Your task to perform on an android device: Do I have any events tomorrow? Image 0: 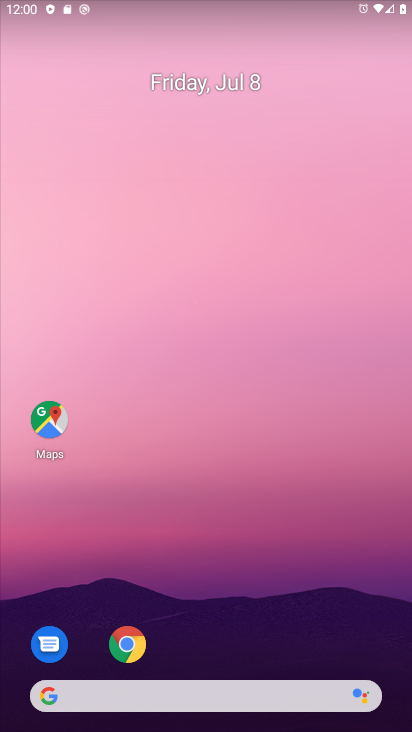
Step 0: drag from (225, 542) to (295, 72)
Your task to perform on an android device: Do I have any events tomorrow? Image 1: 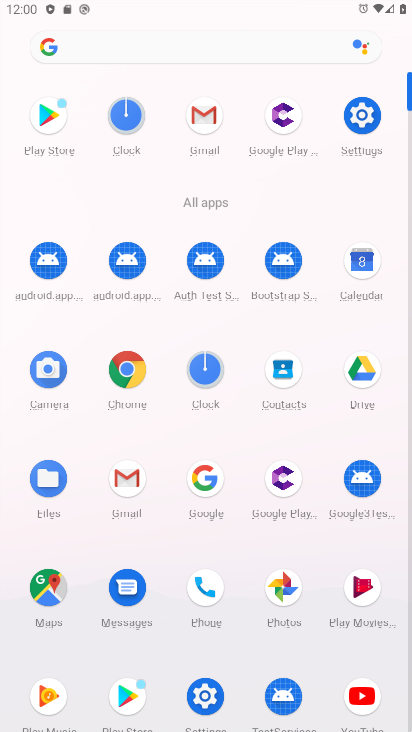
Step 1: click (366, 274)
Your task to perform on an android device: Do I have any events tomorrow? Image 2: 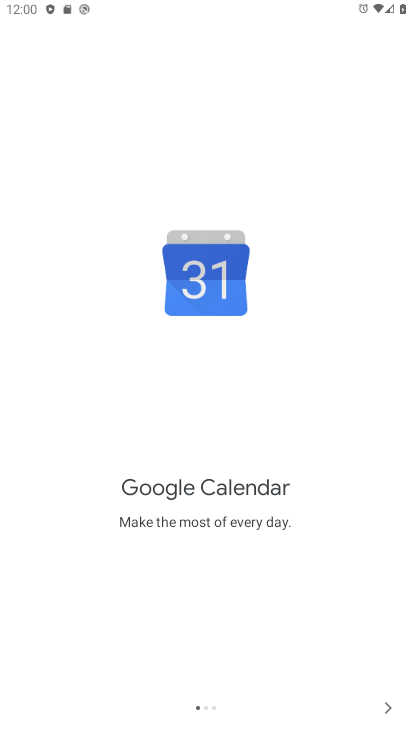
Step 2: click (392, 703)
Your task to perform on an android device: Do I have any events tomorrow? Image 3: 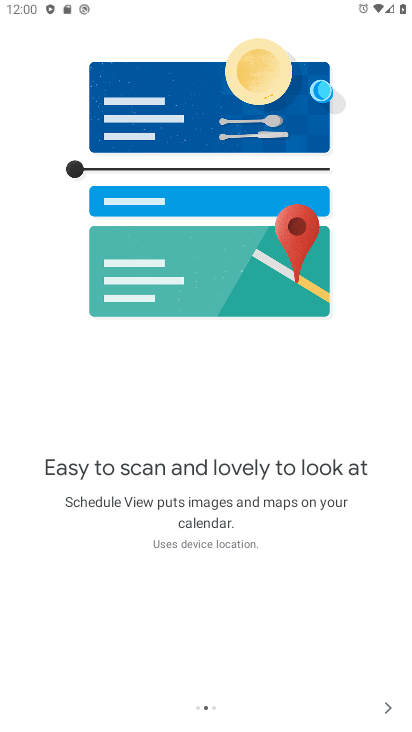
Step 3: click (384, 708)
Your task to perform on an android device: Do I have any events tomorrow? Image 4: 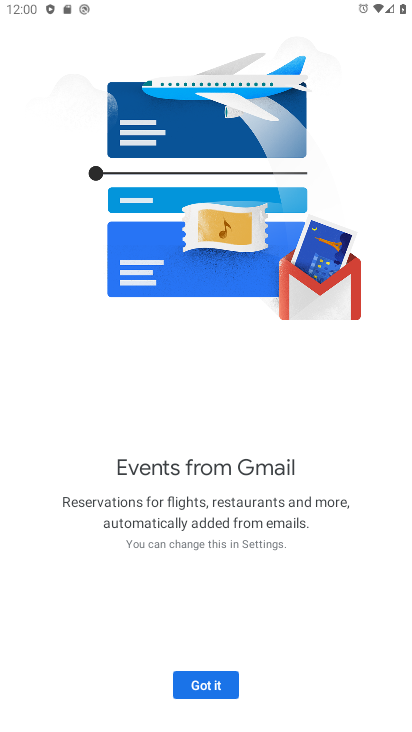
Step 4: click (203, 681)
Your task to perform on an android device: Do I have any events tomorrow? Image 5: 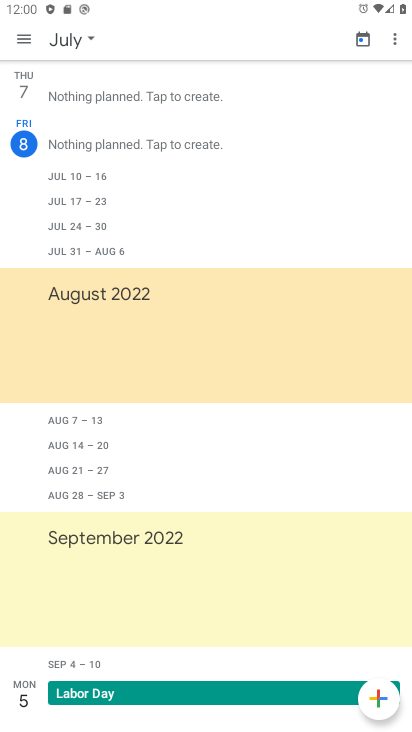
Step 5: click (22, 36)
Your task to perform on an android device: Do I have any events tomorrow? Image 6: 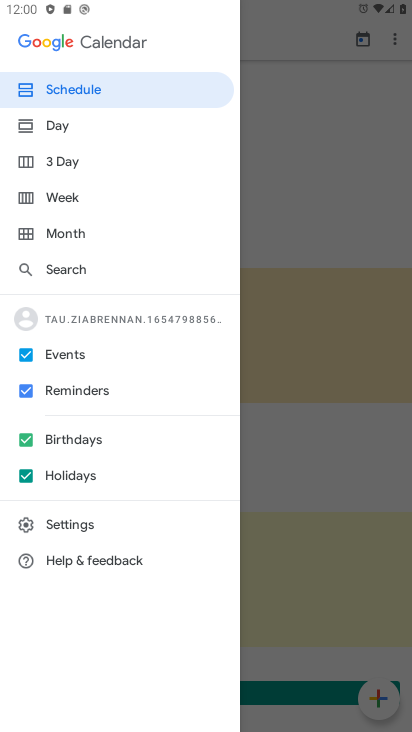
Step 6: click (94, 390)
Your task to perform on an android device: Do I have any events tomorrow? Image 7: 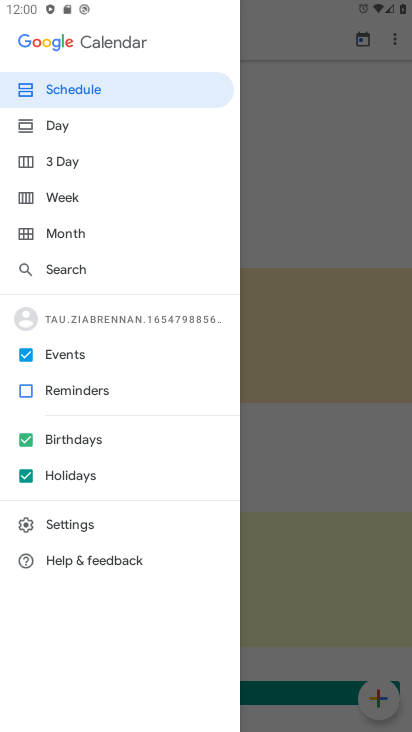
Step 7: click (74, 440)
Your task to perform on an android device: Do I have any events tomorrow? Image 8: 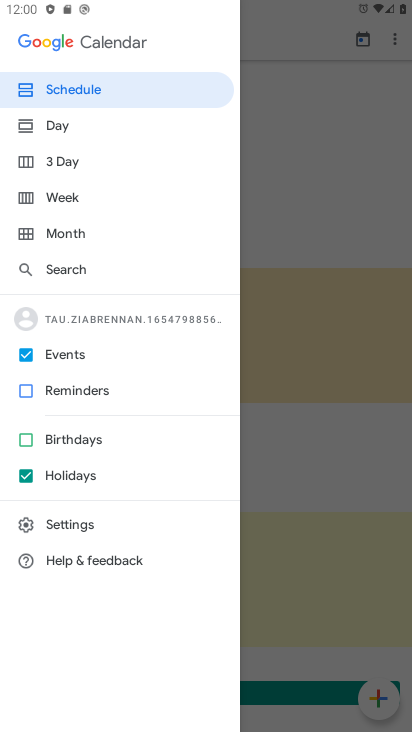
Step 8: click (60, 482)
Your task to perform on an android device: Do I have any events tomorrow? Image 9: 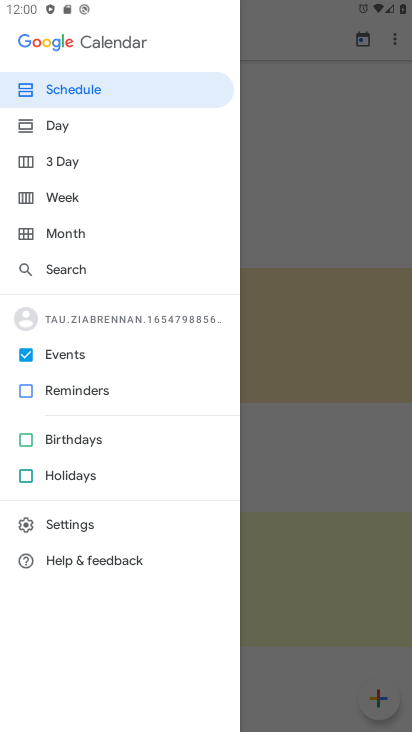
Step 9: click (78, 167)
Your task to perform on an android device: Do I have any events tomorrow? Image 10: 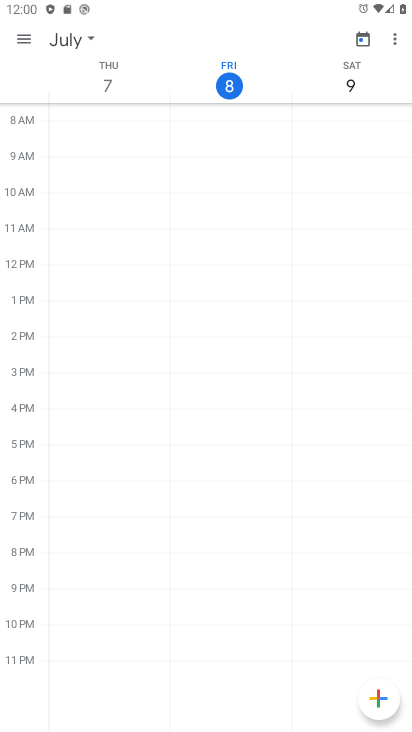
Step 10: task complete